Your task to perform on an android device: Go to calendar. Show me events next week Image 0: 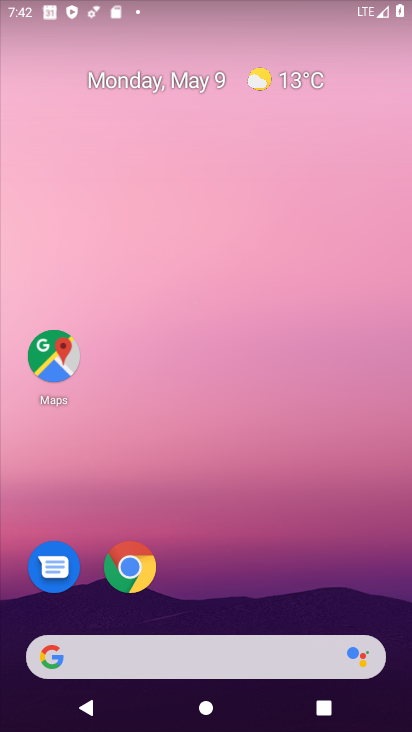
Step 0: drag from (268, 596) to (268, 103)
Your task to perform on an android device: Go to calendar. Show me events next week Image 1: 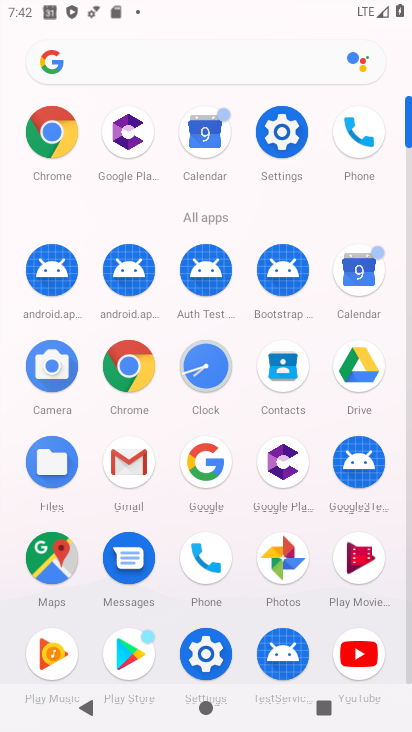
Step 1: click (211, 128)
Your task to perform on an android device: Go to calendar. Show me events next week Image 2: 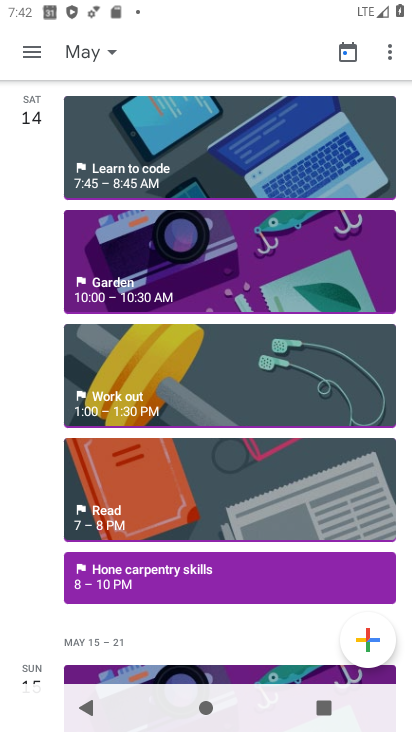
Step 2: click (33, 50)
Your task to perform on an android device: Go to calendar. Show me events next week Image 3: 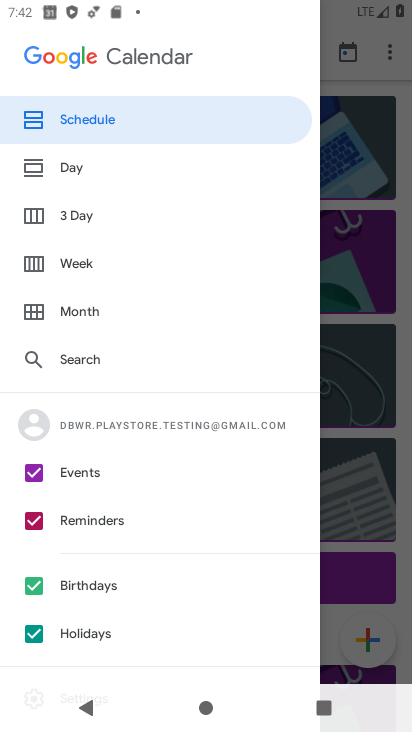
Step 3: click (60, 263)
Your task to perform on an android device: Go to calendar. Show me events next week Image 4: 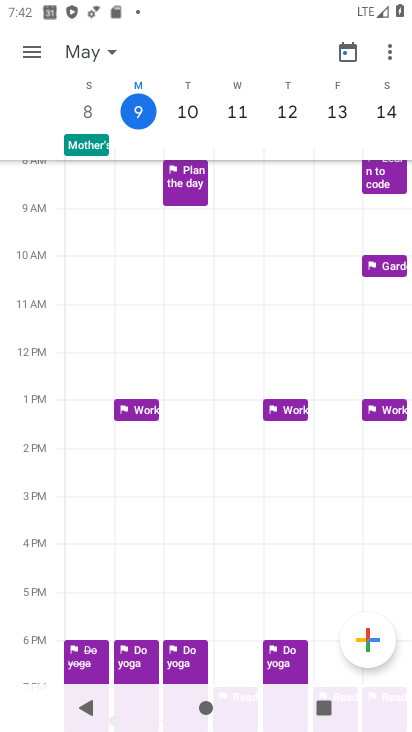
Step 4: task complete